Your task to perform on an android device: Open Yahoo.com Image 0: 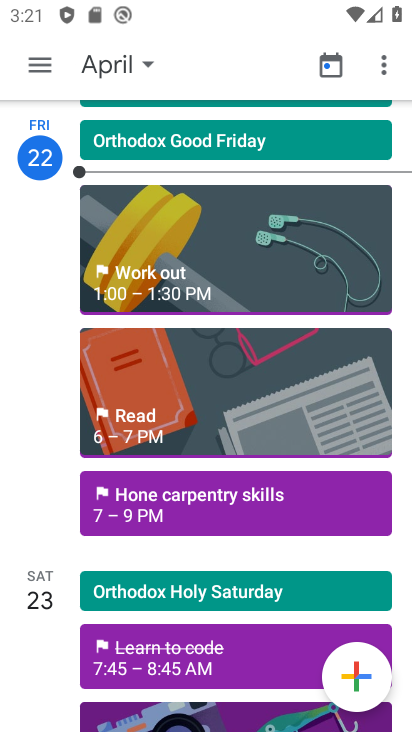
Step 0: press home button
Your task to perform on an android device: Open Yahoo.com Image 1: 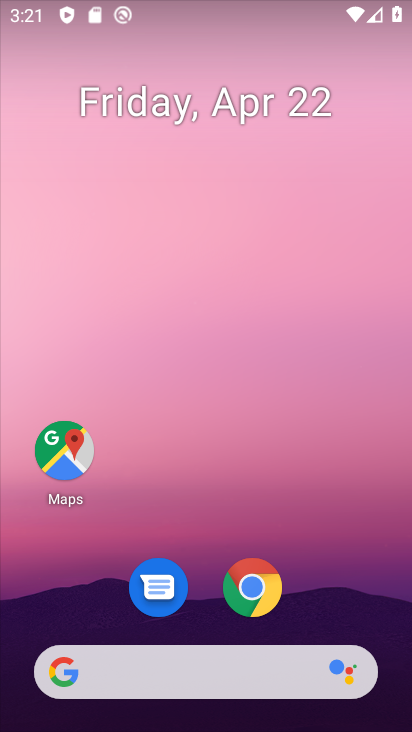
Step 1: click (253, 588)
Your task to perform on an android device: Open Yahoo.com Image 2: 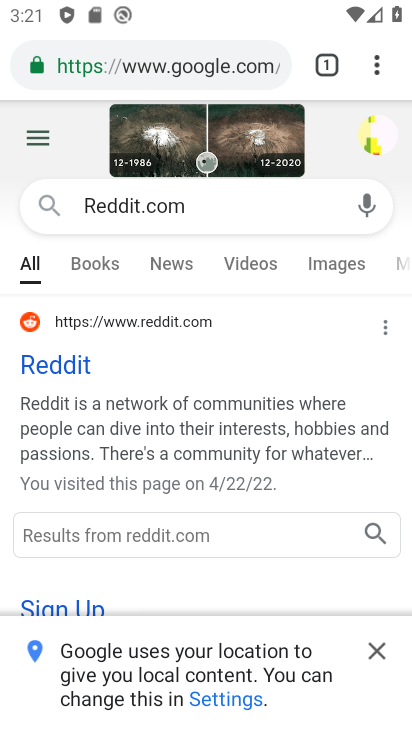
Step 2: click (276, 68)
Your task to perform on an android device: Open Yahoo.com Image 3: 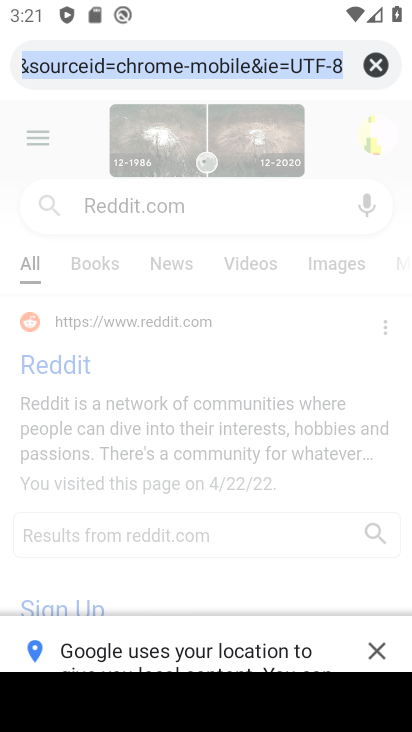
Step 3: click (371, 70)
Your task to perform on an android device: Open Yahoo.com Image 4: 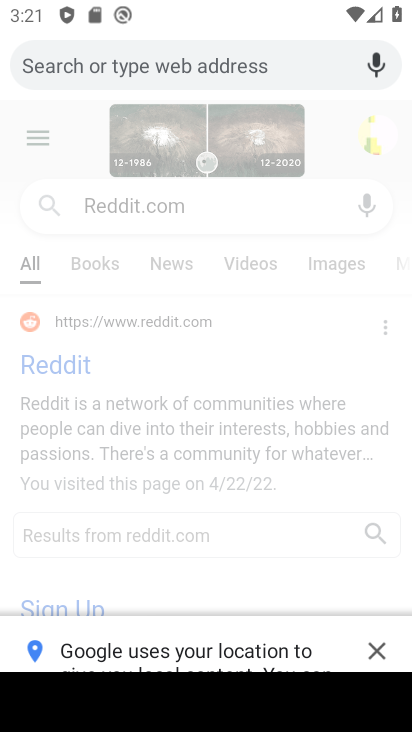
Step 4: type "Yahoo.com"
Your task to perform on an android device: Open Yahoo.com Image 5: 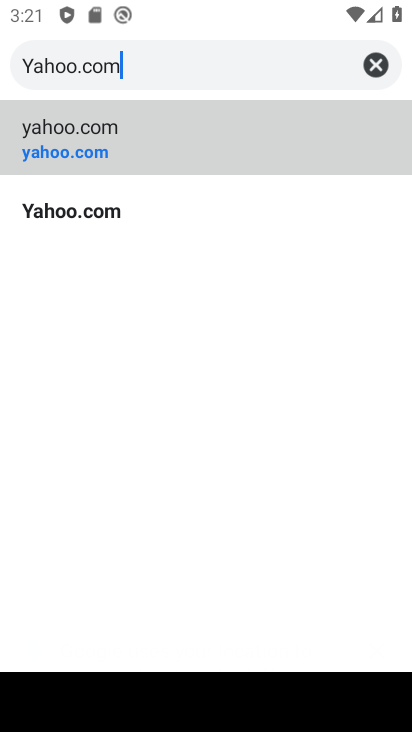
Step 5: type ""
Your task to perform on an android device: Open Yahoo.com Image 6: 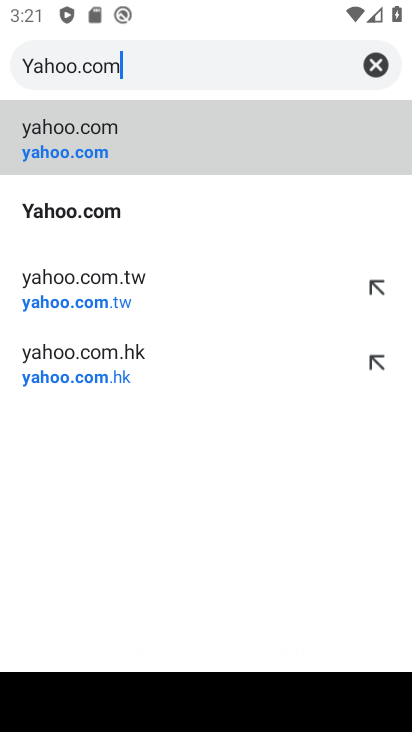
Step 6: click (41, 213)
Your task to perform on an android device: Open Yahoo.com Image 7: 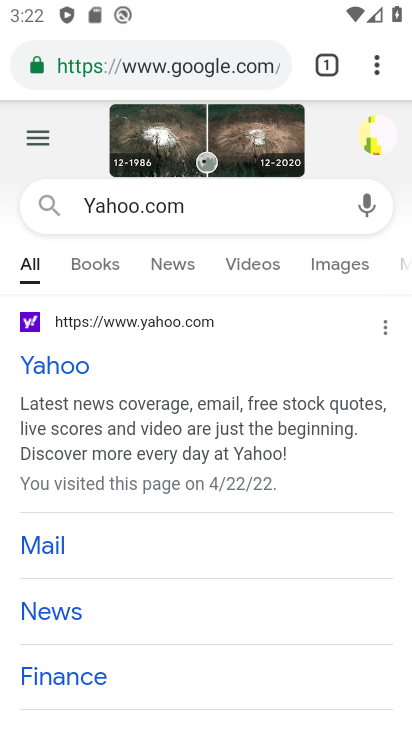
Step 7: task complete